Your task to perform on an android device: turn on the 24-hour format for clock Image 0: 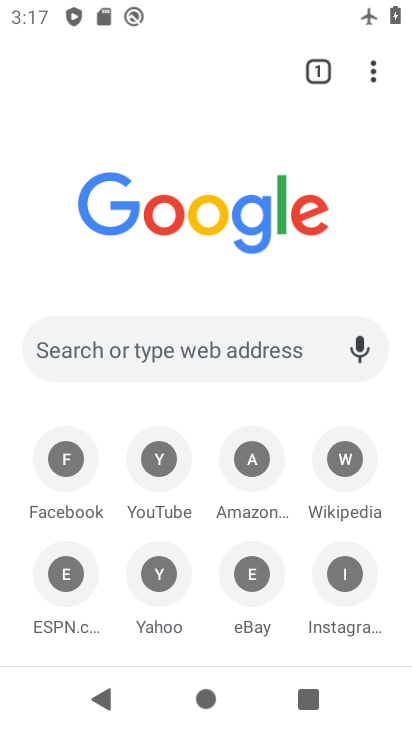
Step 0: press home button
Your task to perform on an android device: turn on the 24-hour format for clock Image 1: 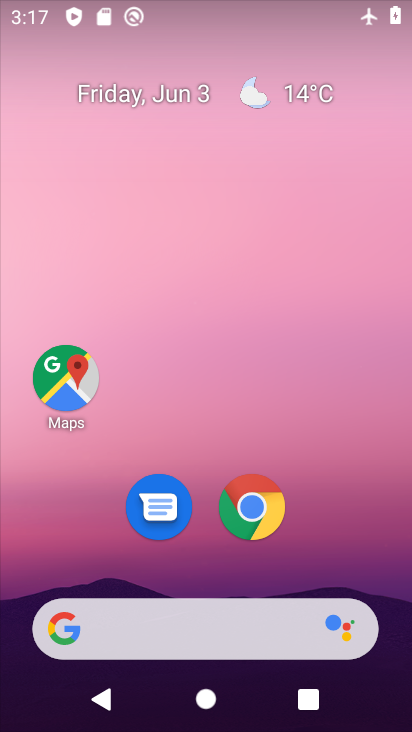
Step 1: drag from (325, 522) to (296, 167)
Your task to perform on an android device: turn on the 24-hour format for clock Image 2: 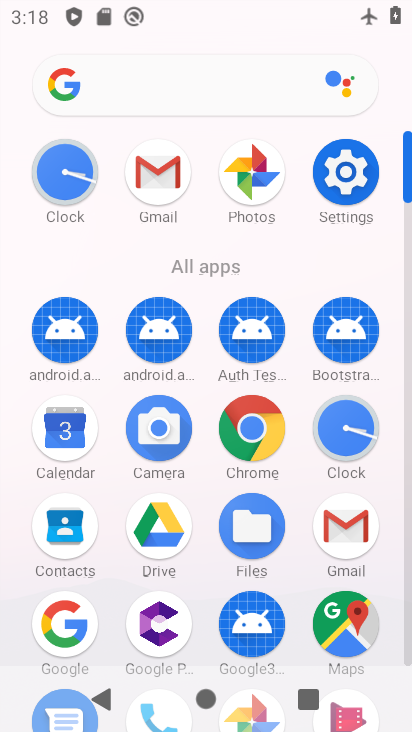
Step 2: click (326, 424)
Your task to perform on an android device: turn on the 24-hour format for clock Image 3: 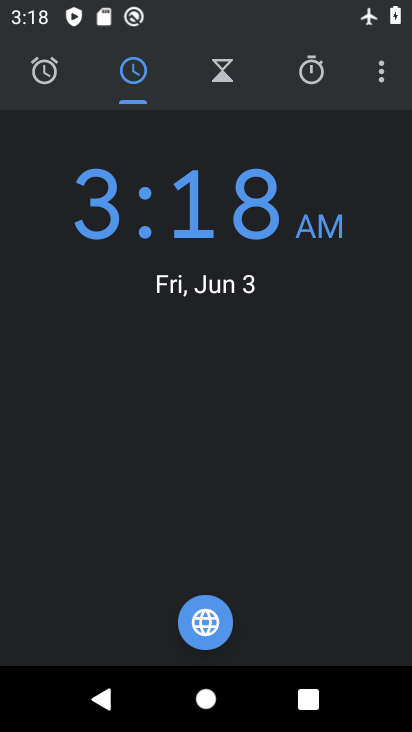
Step 3: click (382, 68)
Your task to perform on an android device: turn on the 24-hour format for clock Image 4: 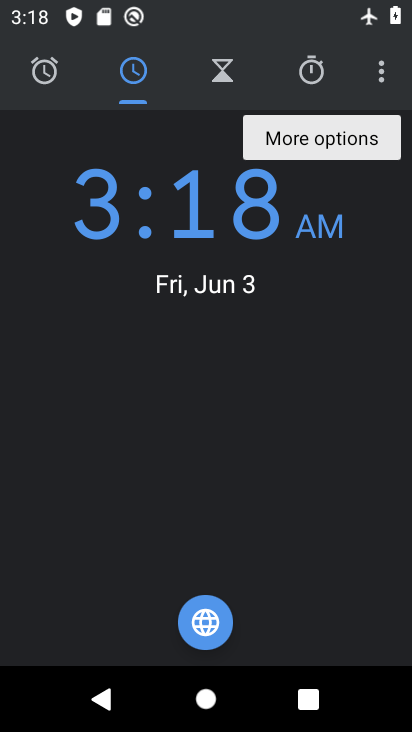
Step 4: click (382, 68)
Your task to perform on an android device: turn on the 24-hour format for clock Image 5: 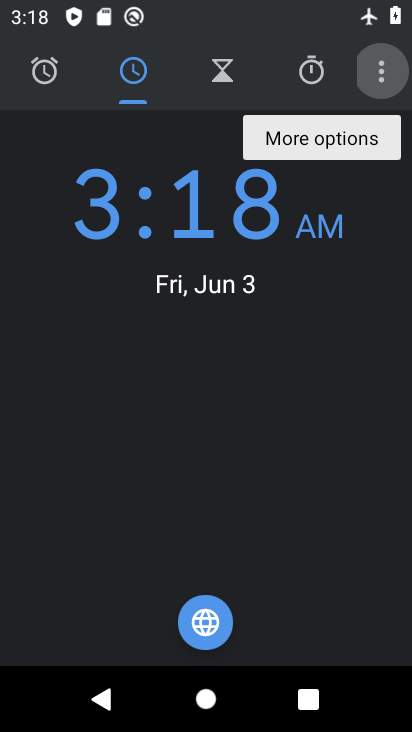
Step 5: click (377, 81)
Your task to perform on an android device: turn on the 24-hour format for clock Image 6: 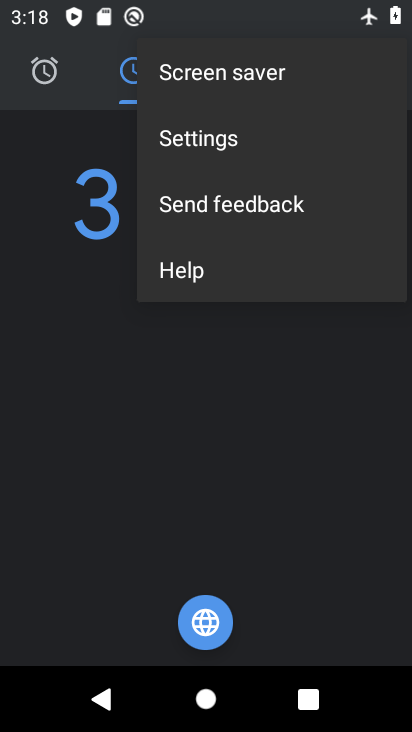
Step 6: click (263, 137)
Your task to perform on an android device: turn on the 24-hour format for clock Image 7: 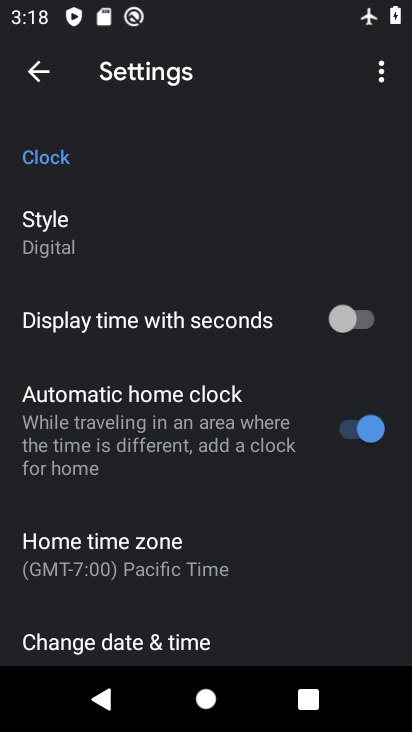
Step 7: drag from (330, 582) to (265, 294)
Your task to perform on an android device: turn on the 24-hour format for clock Image 8: 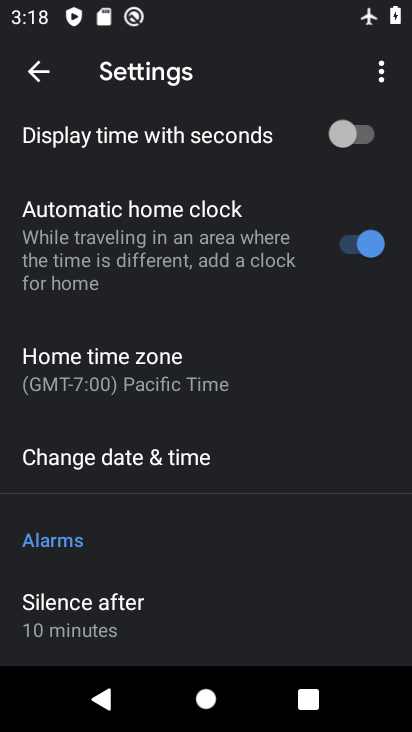
Step 8: click (162, 455)
Your task to perform on an android device: turn on the 24-hour format for clock Image 9: 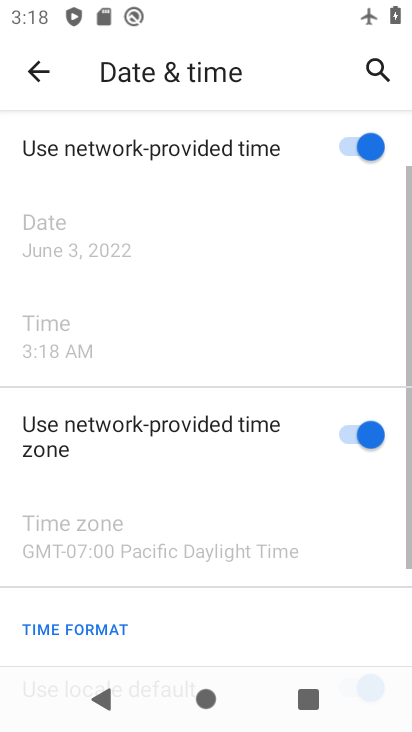
Step 9: drag from (323, 598) to (262, 247)
Your task to perform on an android device: turn on the 24-hour format for clock Image 10: 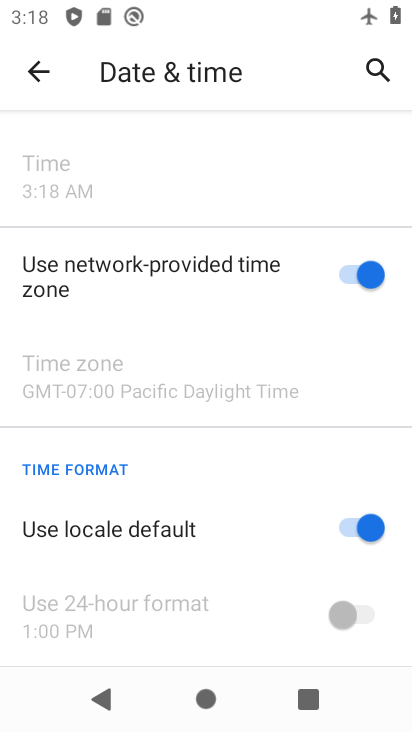
Step 10: click (336, 615)
Your task to perform on an android device: turn on the 24-hour format for clock Image 11: 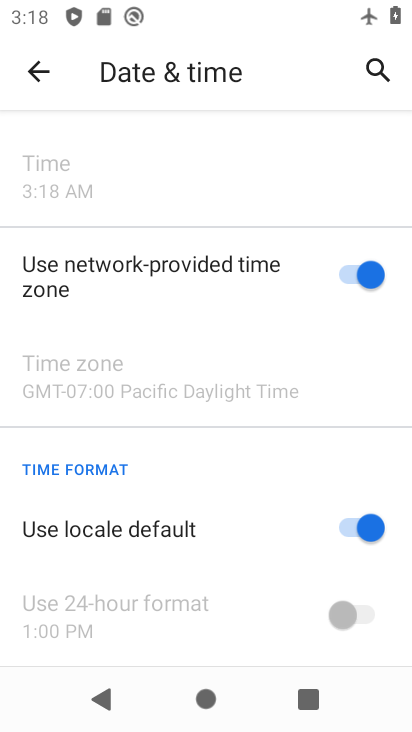
Step 11: click (357, 614)
Your task to perform on an android device: turn on the 24-hour format for clock Image 12: 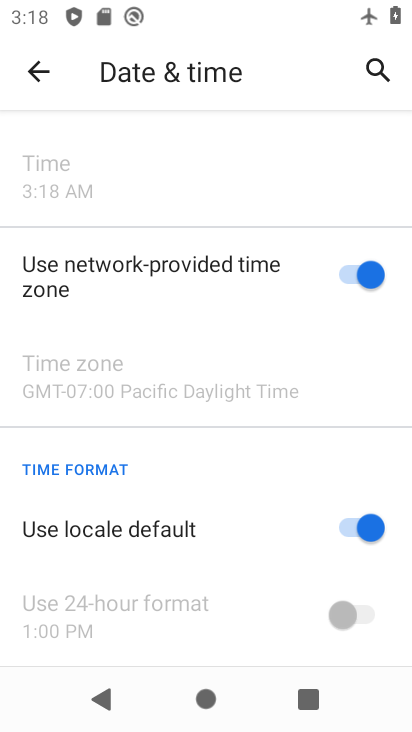
Step 12: click (358, 541)
Your task to perform on an android device: turn on the 24-hour format for clock Image 13: 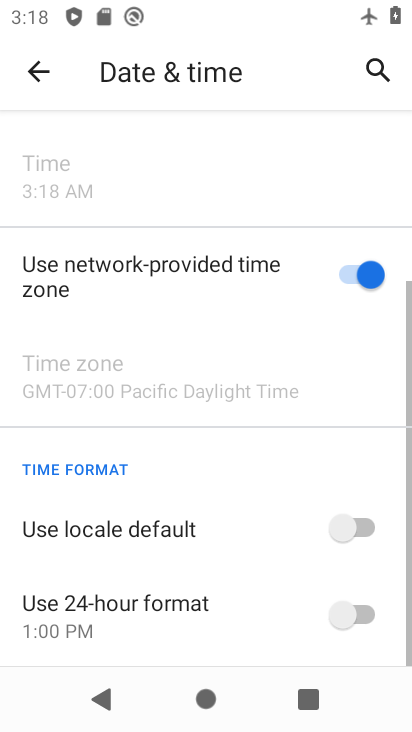
Step 13: click (361, 624)
Your task to perform on an android device: turn on the 24-hour format for clock Image 14: 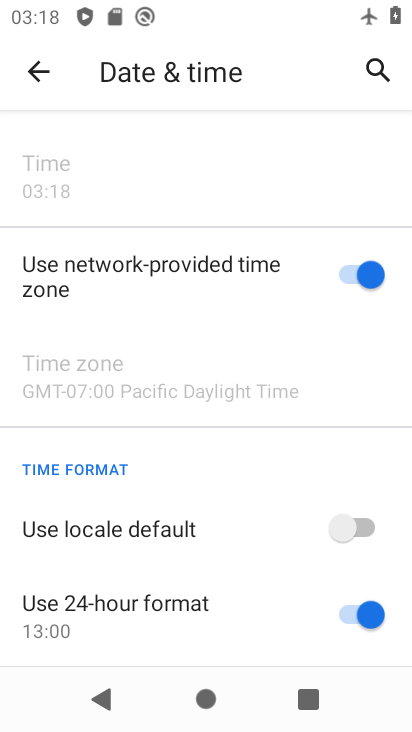
Step 14: task complete